Your task to perform on an android device: turn off wifi Image 0: 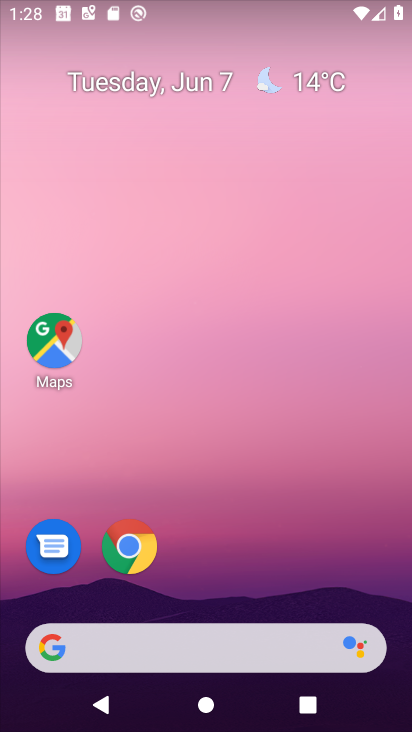
Step 0: drag from (272, 519) to (266, 161)
Your task to perform on an android device: turn off wifi Image 1: 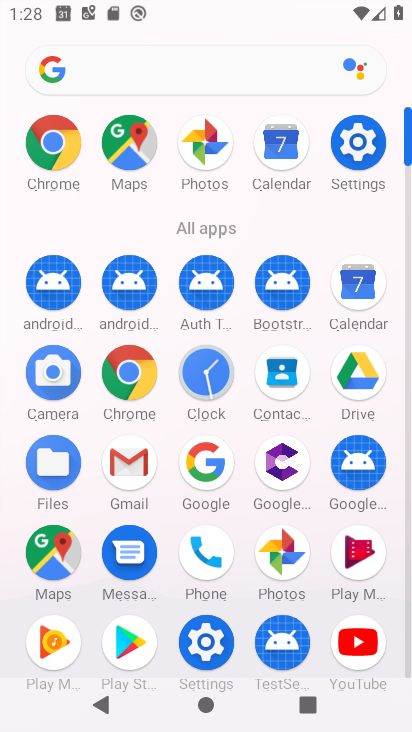
Step 1: click (348, 146)
Your task to perform on an android device: turn off wifi Image 2: 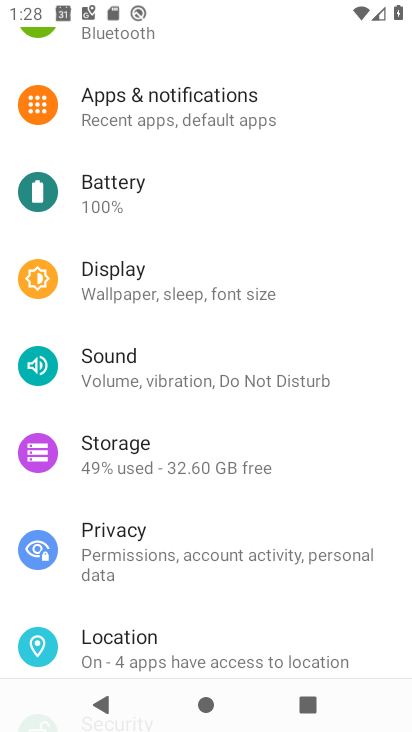
Step 2: drag from (278, 41) to (303, 571)
Your task to perform on an android device: turn off wifi Image 3: 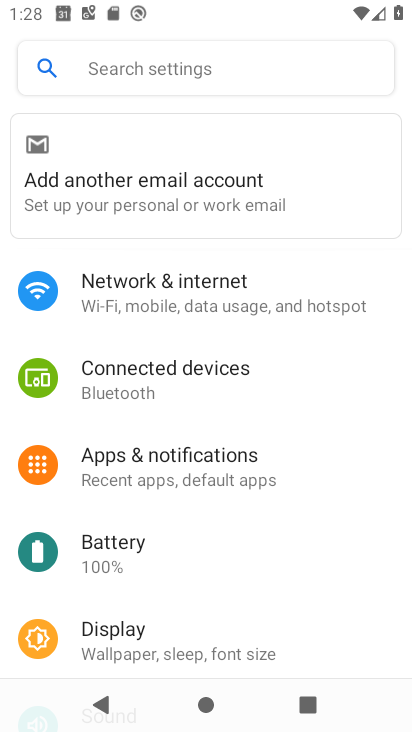
Step 3: click (235, 312)
Your task to perform on an android device: turn off wifi Image 4: 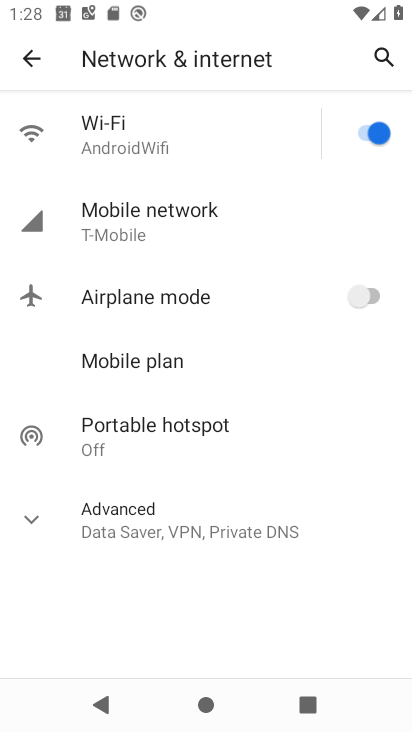
Step 4: click (375, 136)
Your task to perform on an android device: turn off wifi Image 5: 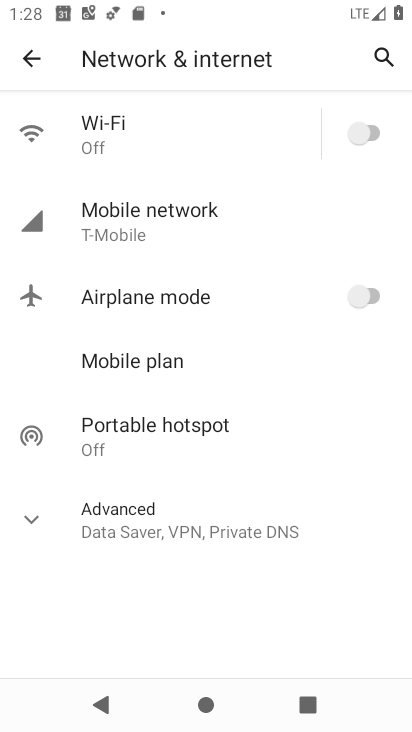
Step 5: task complete